Your task to perform on an android device: Search for the Best selling coffee table on Ikea Image 0: 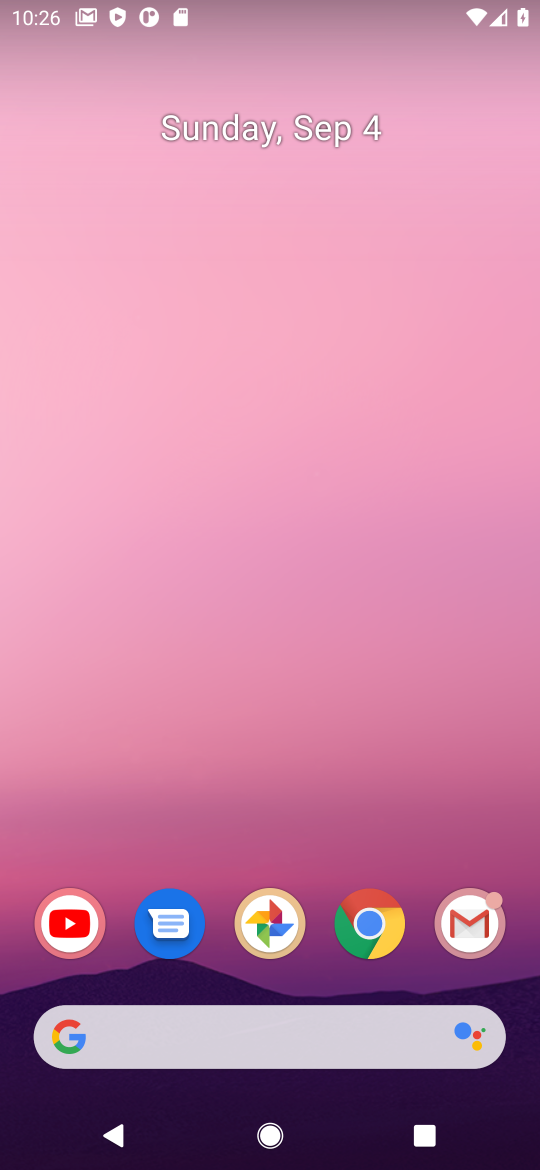
Step 0: click (336, 941)
Your task to perform on an android device: Search for the Best selling coffee table on Ikea Image 1: 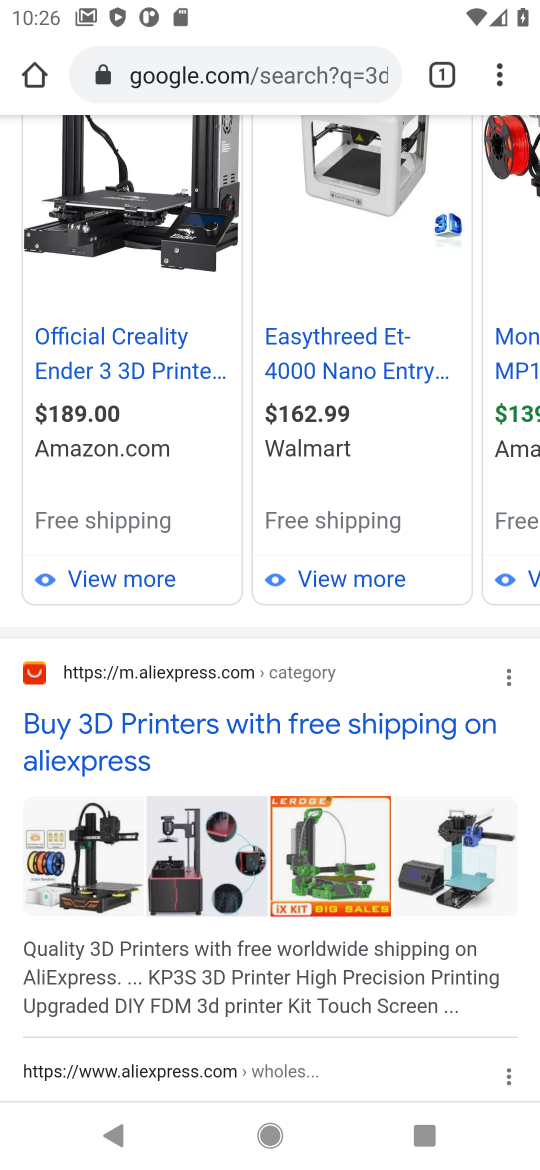
Step 1: click (196, 62)
Your task to perform on an android device: Search for the Best selling coffee table on Ikea Image 2: 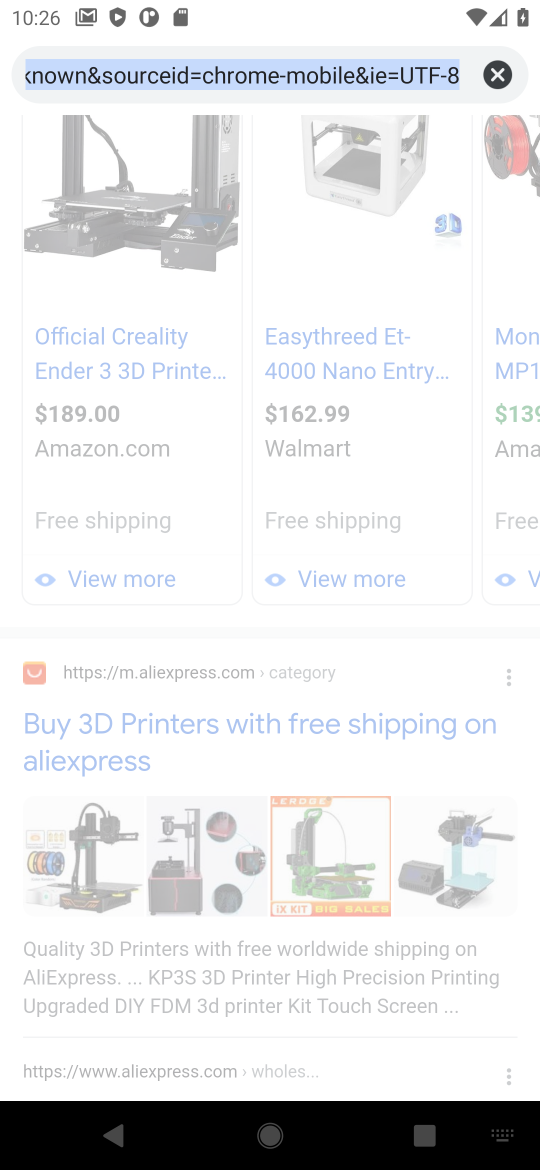
Step 2: click (496, 73)
Your task to perform on an android device: Search for the Best selling coffee table on Ikea Image 3: 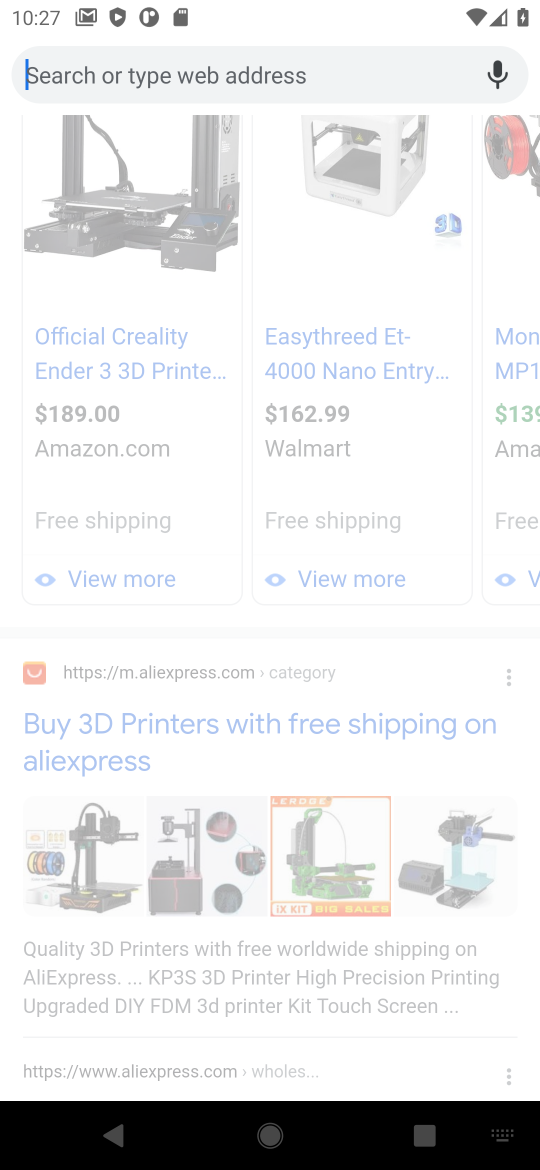
Step 3: type "the Best selling coffee table on Ikea"
Your task to perform on an android device: Search for the Best selling coffee table on Ikea Image 4: 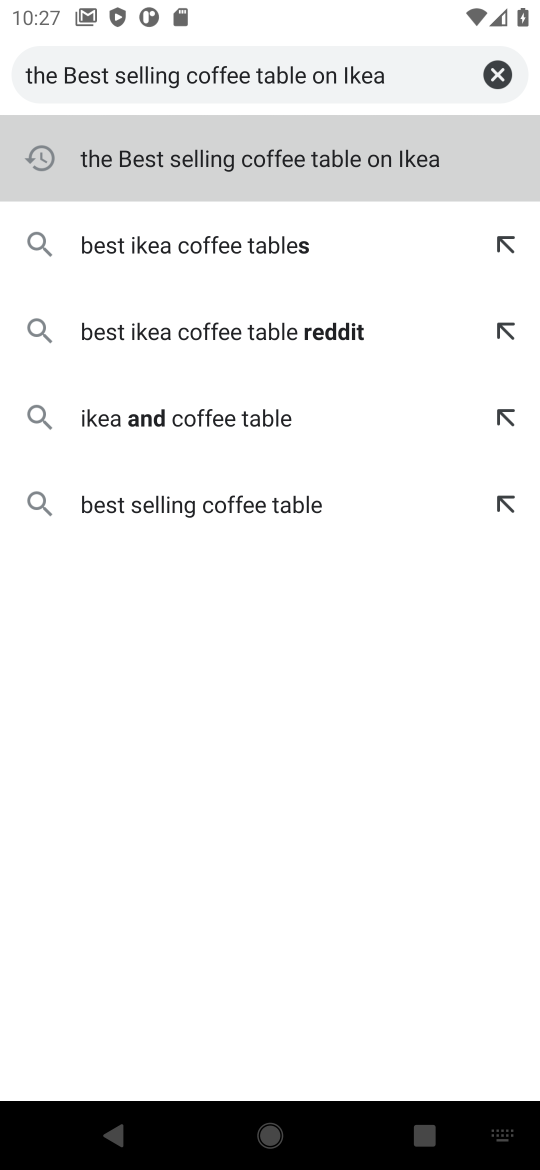
Step 4: click (194, 148)
Your task to perform on an android device: Search for the Best selling coffee table on Ikea Image 5: 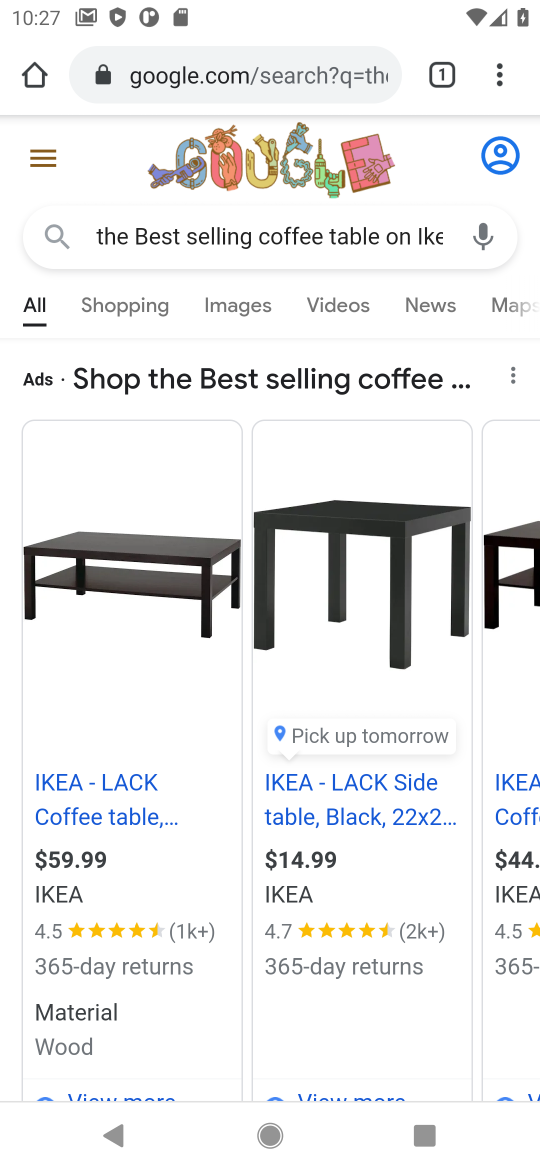
Step 5: task complete